Your task to perform on an android device: find photos in the google photos app Image 0: 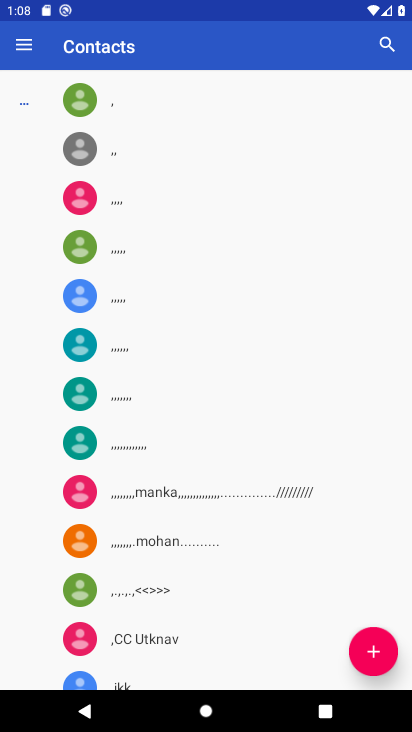
Step 0: press home button
Your task to perform on an android device: find photos in the google photos app Image 1: 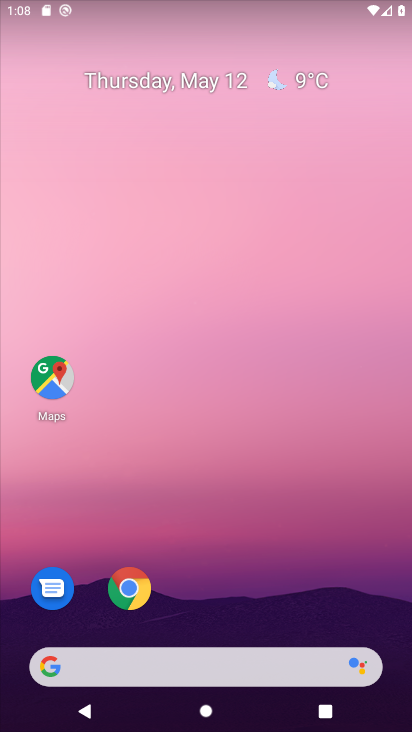
Step 1: drag from (283, 613) to (346, 156)
Your task to perform on an android device: find photos in the google photos app Image 2: 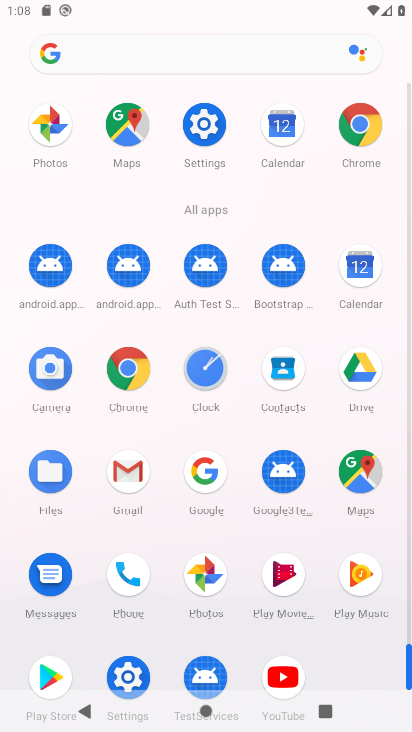
Step 2: click (198, 573)
Your task to perform on an android device: find photos in the google photos app Image 3: 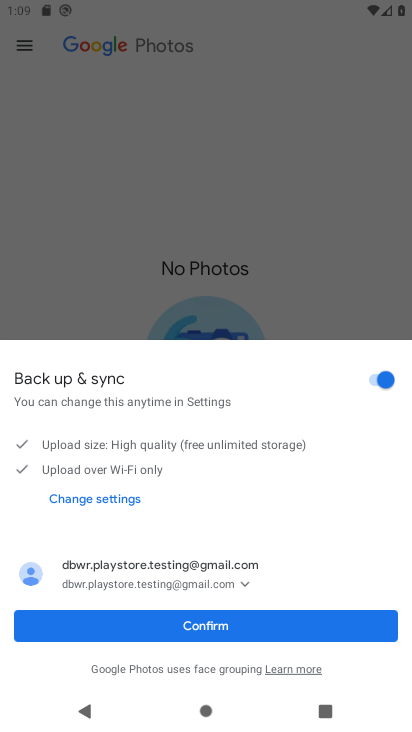
Step 3: click (217, 627)
Your task to perform on an android device: find photos in the google photos app Image 4: 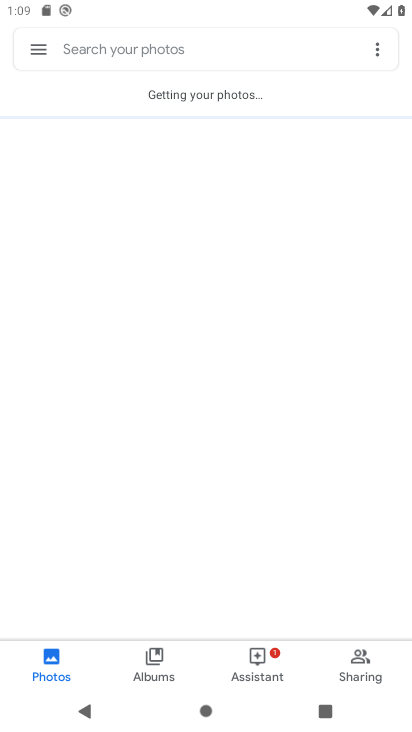
Step 4: click (30, 659)
Your task to perform on an android device: find photos in the google photos app Image 5: 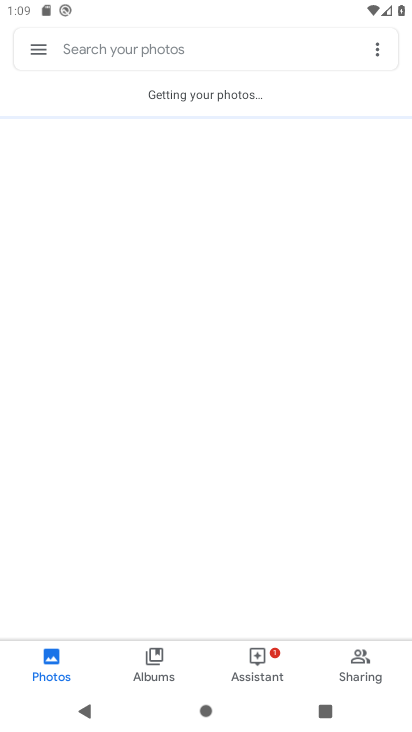
Step 5: click (51, 662)
Your task to perform on an android device: find photos in the google photos app Image 6: 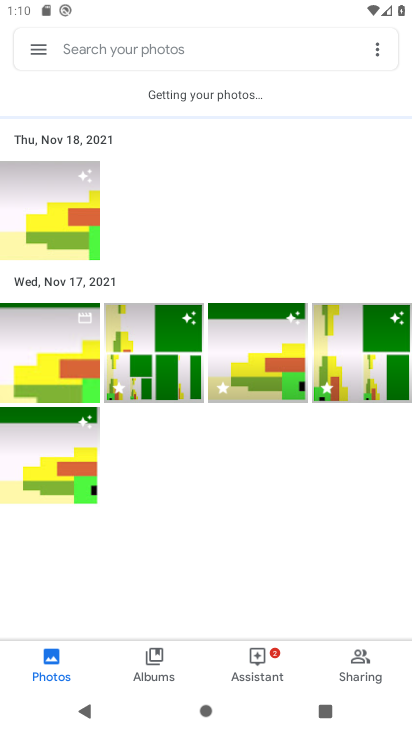
Step 6: click (71, 190)
Your task to perform on an android device: find photos in the google photos app Image 7: 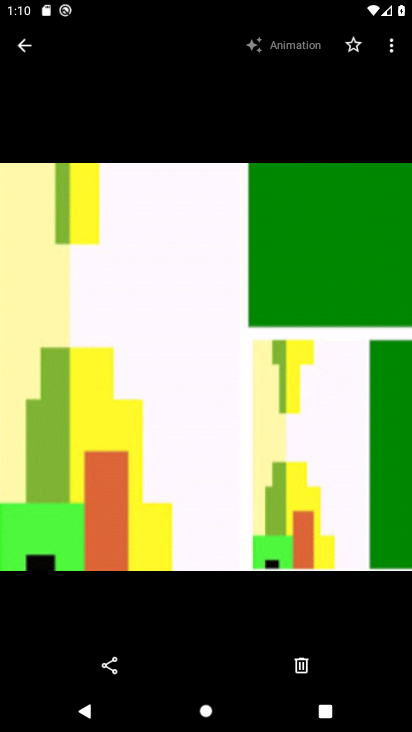
Step 7: task complete